Your task to perform on an android device: Show me popular videos on Youtube Image 0: 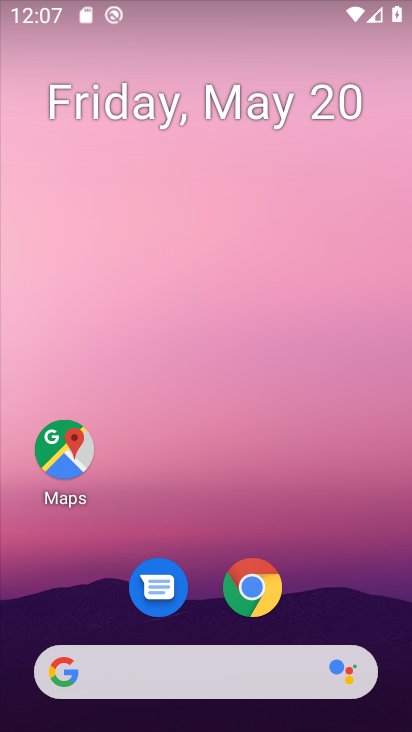
Step 0: drag from (349, 571) to (360, 191)
Your task to perform on an android device: Show me popular videos on Youtube Image 1: 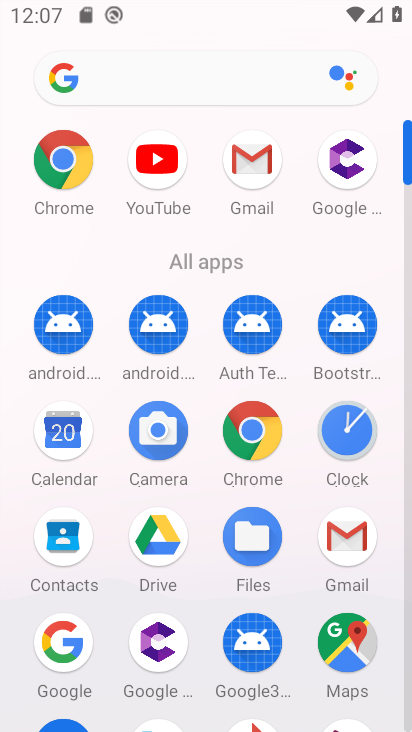
Step 1: drag from (298, 610) to (291, 384)
Your task to perform on an android device: Show me popular videos on Youtube Image 2: 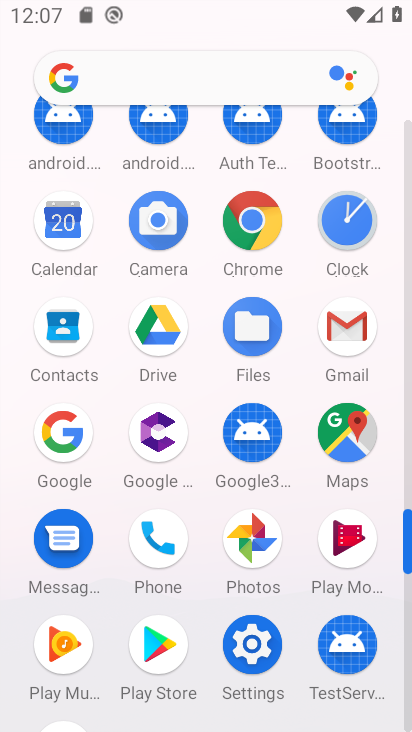
Step 2: drag from (293, 555) to (293, 459)
Your task to perform on an android device: Show me popular videos on Youtube Image 3: 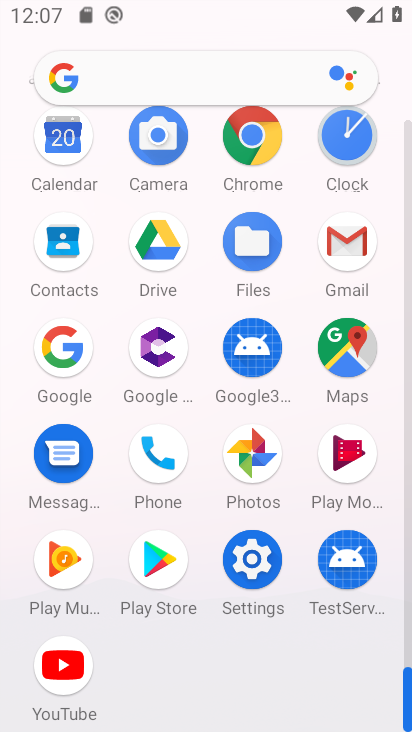
Step 3: click (57, 688)
Your task to perform on an android device: Show me popular videos on Youtube Image 4: 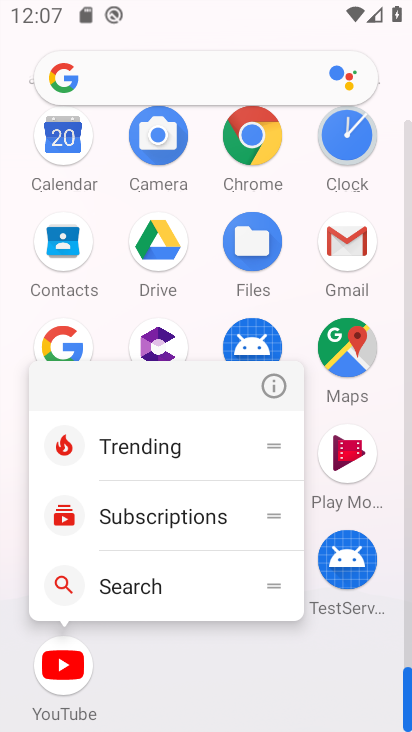
Step 4: click (57, 688)
Your task to perform on an android device: Show me popular videos on Youtube Image 5: 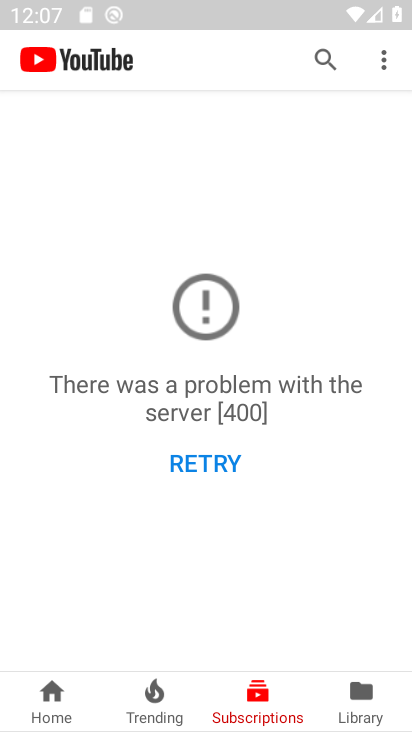
Step 5: click (49, 695)
Your task to perform on an android device: Show me popular videos on Youtube Image 6: 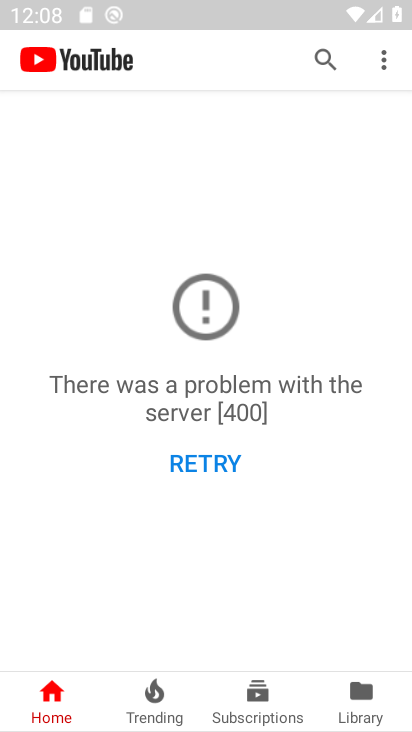
Step 6: task complete